Your task to perform on an android device: check battery use Image 0: 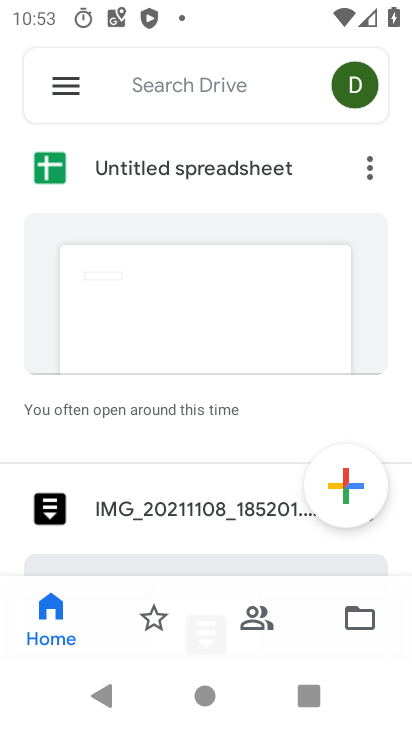
Step 0: press home button
Your task to perform on an android device: check battery use Image 1: 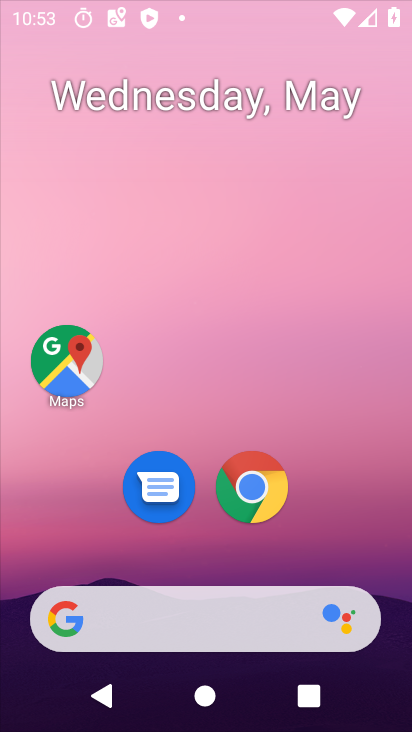
Step 1: drag from (255, 664) to (218, 45)
Your task to perform on an android device: check battery use Image 2: 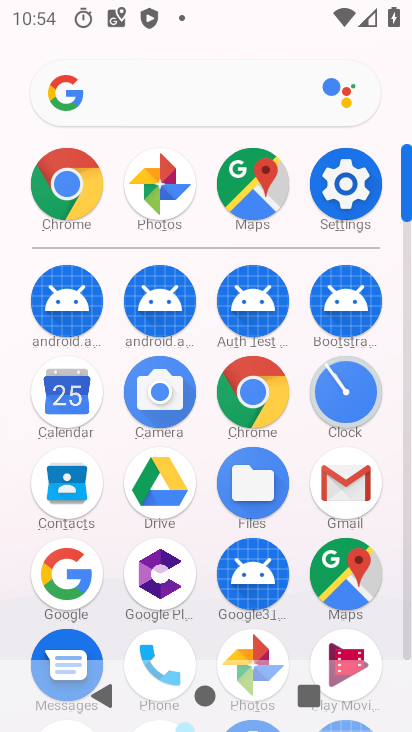
Step 2: click (364, 194)
Your task to perform on an android device: check battery use Image 3: 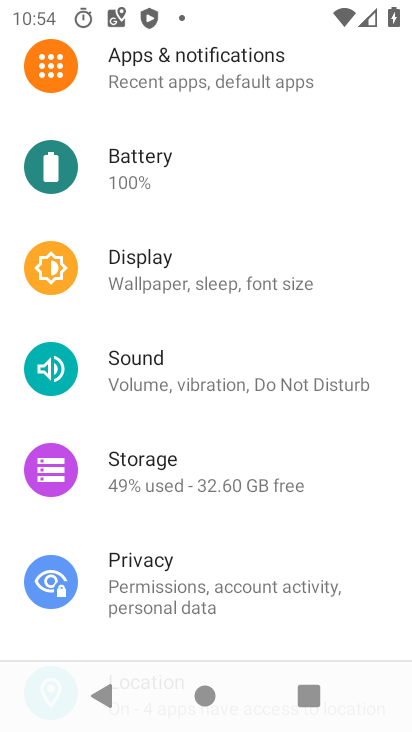
Step 3: click (210, 182)
Your task to perform on an android device: check battery use Image 4: 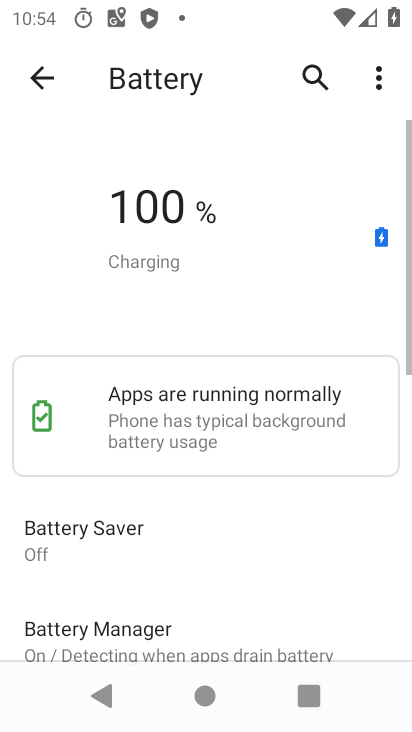
Step 4: task complete